Your task to perform on an android device: turn on the 12-hour format for clock Image 0: 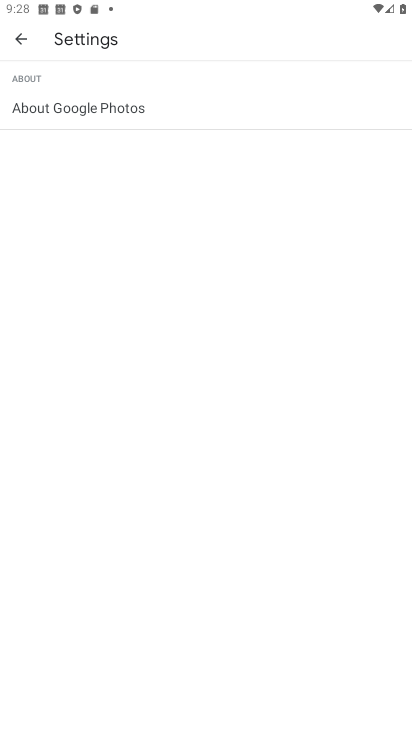
Step 0: drag from (141, 550) to (223, 136)
Your task to perform on an android device: turn on the 12-hour format for clock Image 1: 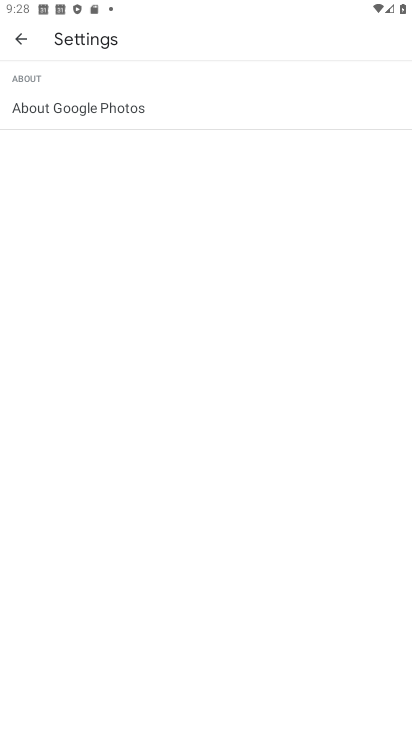
Step 1: press home button
Your task to perform on an android device: turn on the 12-hour format for clock Image 2: 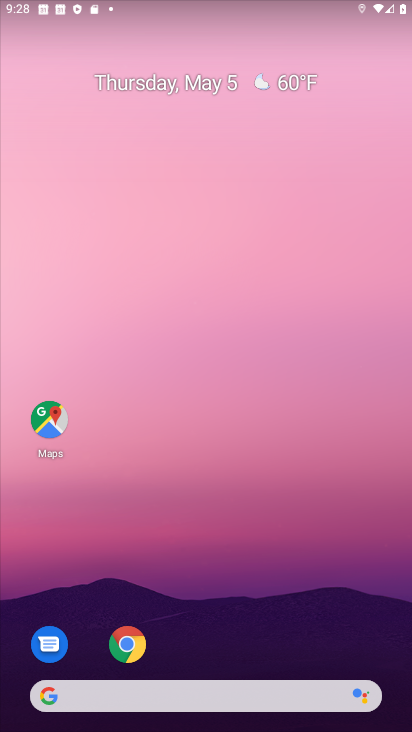
Step 2: drag from (178, 628) to (266, 198)
Your task to perform on an android device: turn on the 12-hour format for clock Image 3: 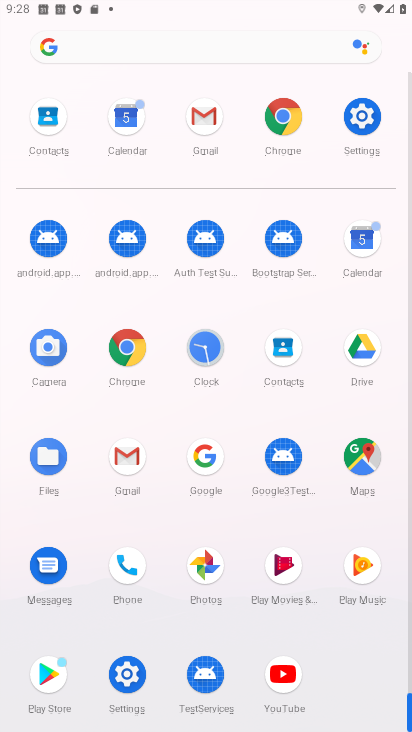
Step 3: click (200, 352)
Your task to perform on an android device: turn on the 12-hour format for clock Image 4: 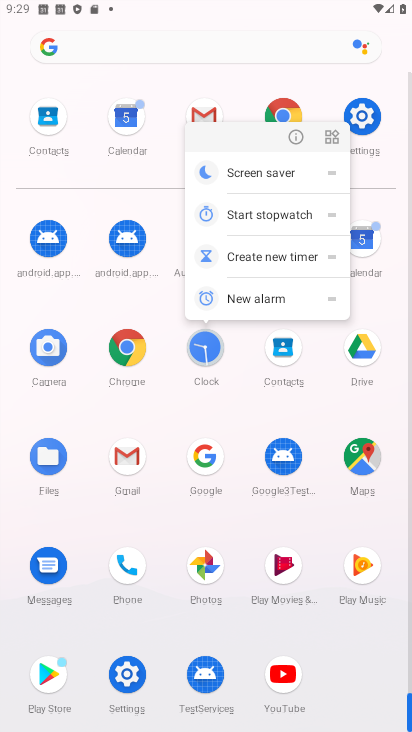
Step 4: click (289, 141)
Your task to perform on an android device: turn on the 12-hour format for clock Image 5: 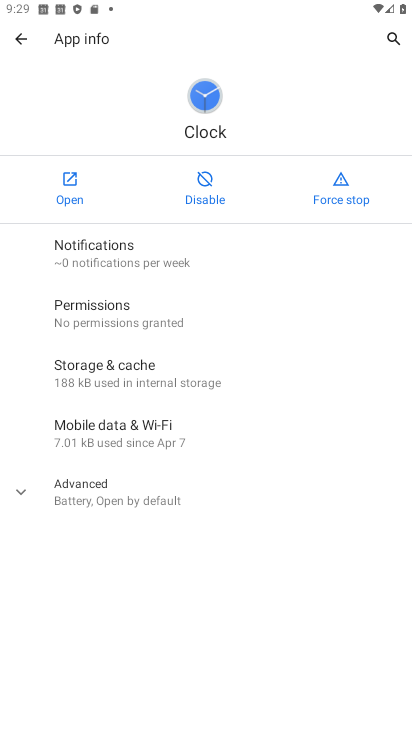
Step 5: click (79, 211)
Your task to perform on an android device: turn on the 12-hour format for clock Image 6: 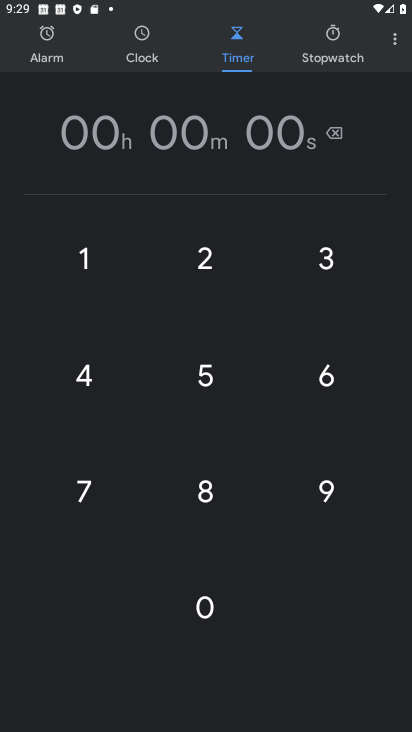
Step 6: click (385, 50)
Your task to perform on an android device: turn on the 12-hour format for clock Image 7: 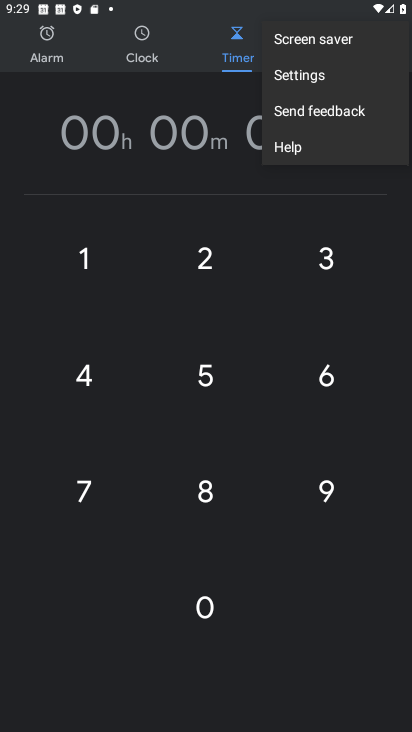
Step 7: click (319, 78)
Your task to perform on an android device: turn on the 12-hour format for clock Image 8: 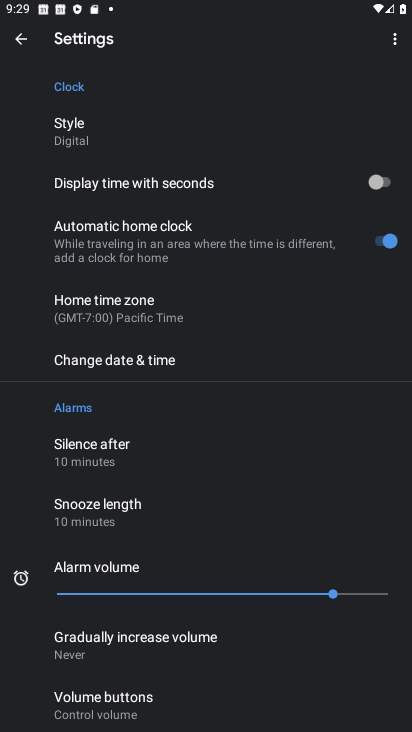
Step 8: click (143, 359)
Your task to perform on an android device: turn on the 12-hour format for clock Image 9: 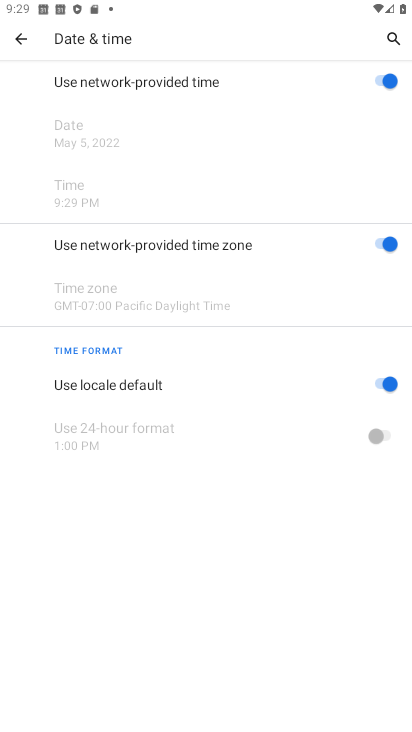
Step 9: task complete